Your task to perform on an android device: Go to network settings Image 0: 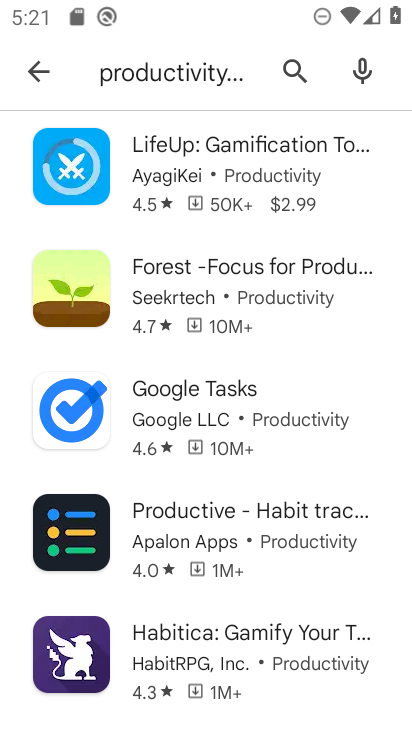
Step 0: press home button
Your task to perform on an android device: Go to network settings Image 1: 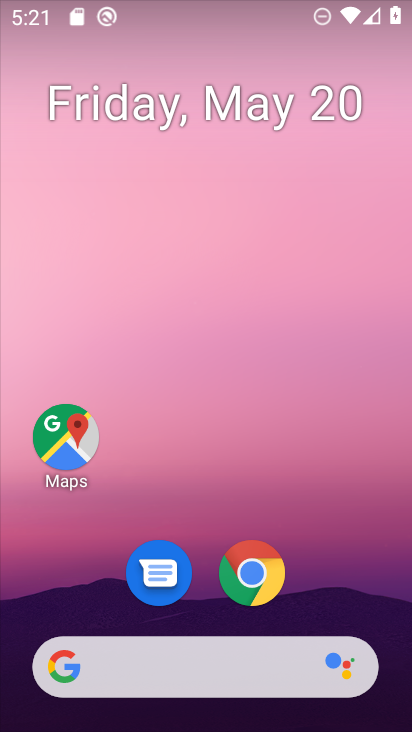
Step 1: drag from (344, 506) to (210, 11)
Your task to perform on an android device: Go to network settings Image 2: 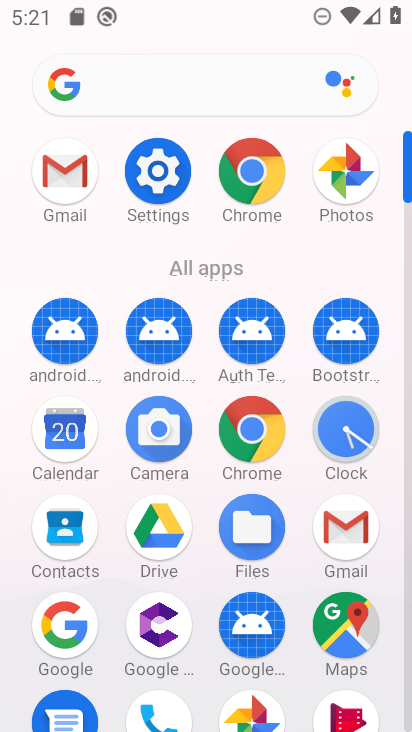
Step 2: click (162, 180)
Your task to perform on an android device: Go to network settings Image 3: 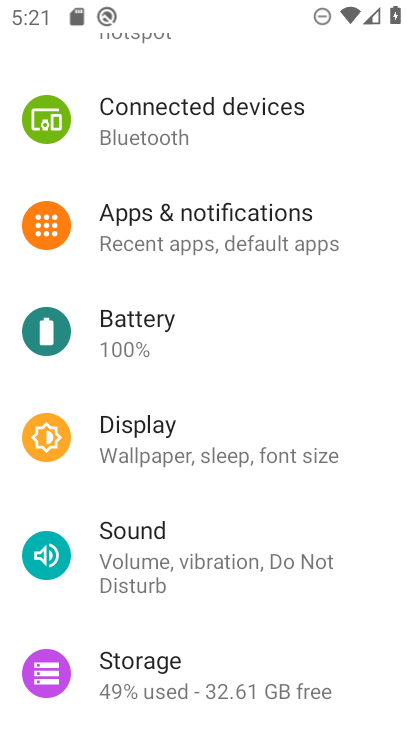
Step 3: drag from (262, 158) to (201, 654)
Your task to perform on an android device: Go to network settings Image 4: 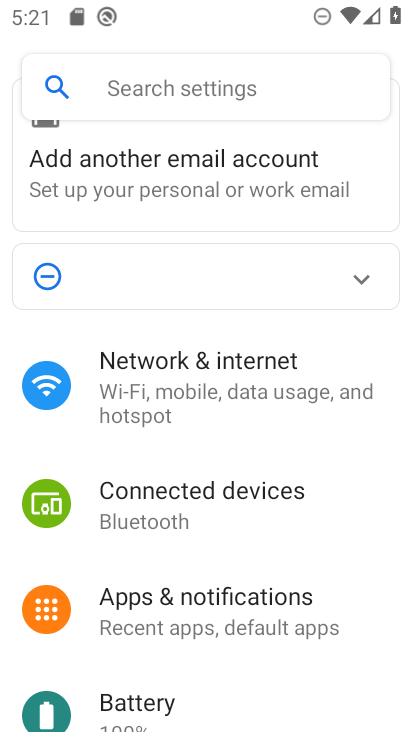
Step 4: click (207, 357)
Your task to perform on an android device: Go to network settings Image 5: 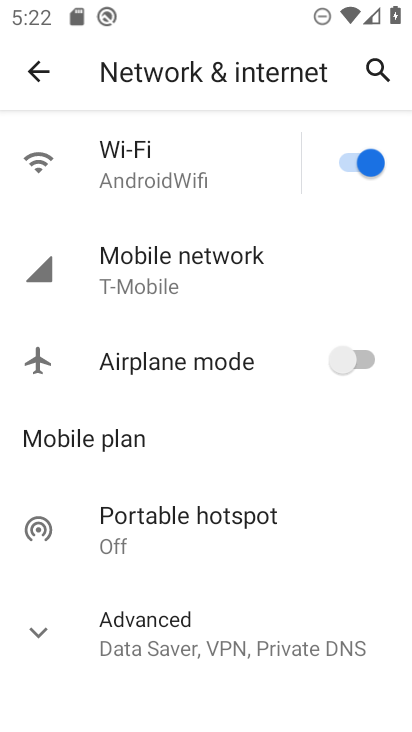
Step 5: task complete